Your task to perform on an android device: Open internet settings Image 0: 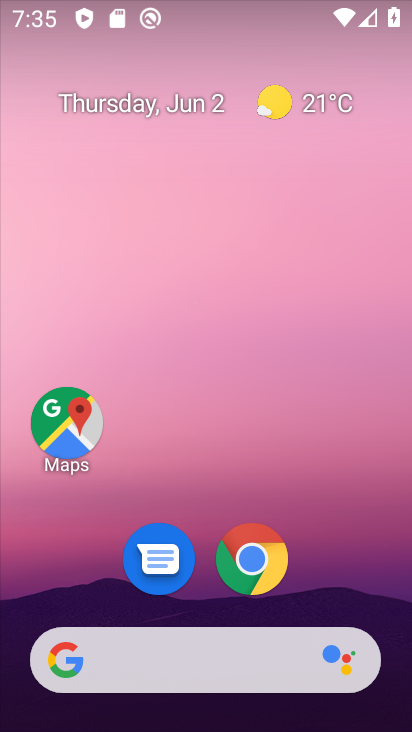
Step 0: click (163, 18)
Your task to perform on an android device: Open internet settings Image 1: 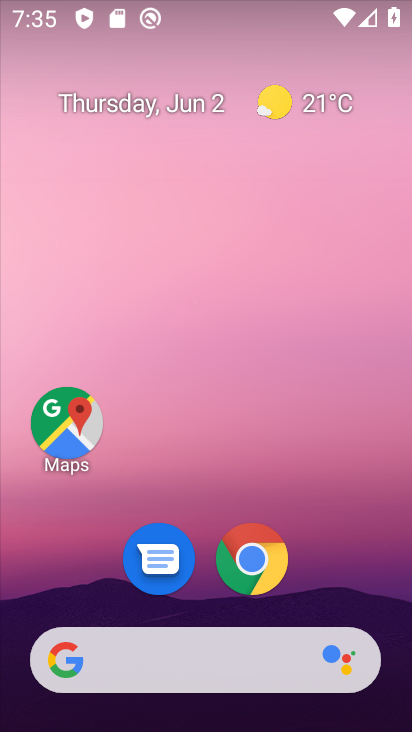
Step 1: drag from (216, 486) to (146, 19)
Your task to perform on an android device: Open internet settings Image 2: 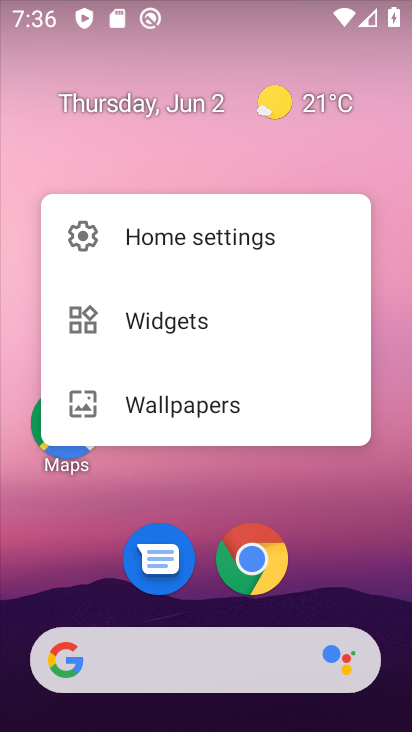
Step 2: click (336, 523)
Your task to perform on an android device: Open internet settings Image 3: 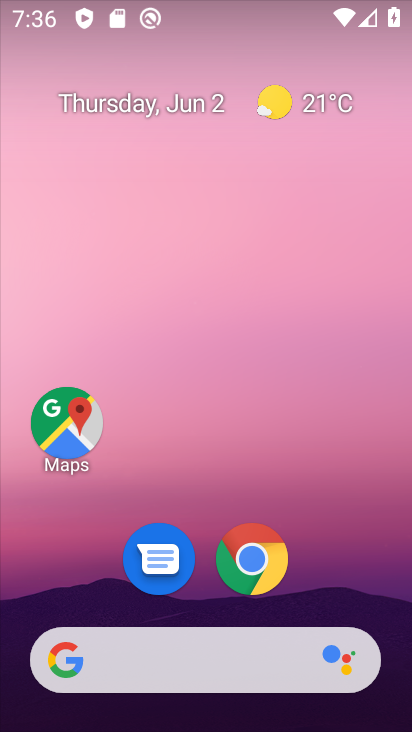
Step 3: click (234, 105)
Your task to perform on an android device: Open internet settings Image 4: 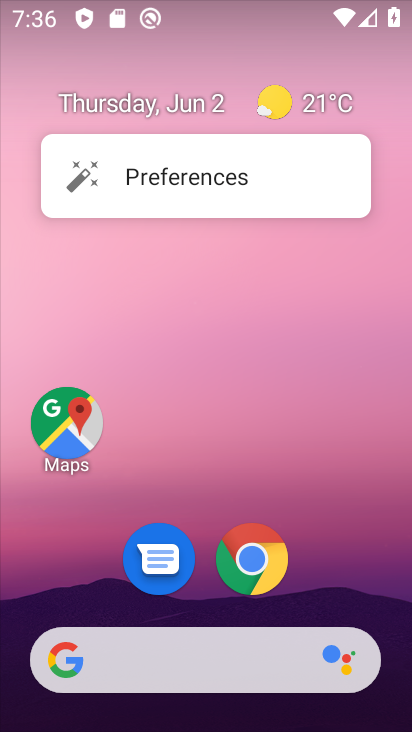
Step 4: click (203, 491)
Your task to perform on an android device: Open internet settings Image 5: 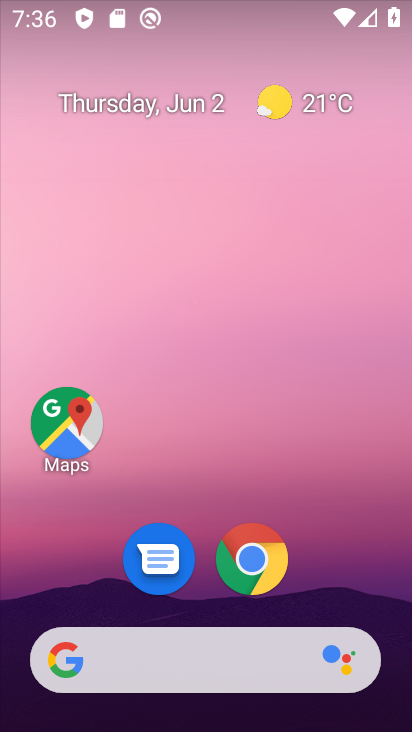
Step 5: drag from (193, 302) to (203, 86)
Your task to perform on an android device: Open internet settings Image 6: 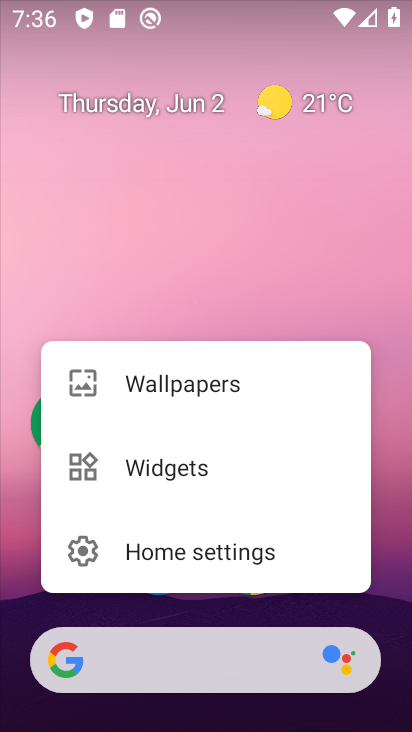
Step 6: click (280, 207)
Your task to perform on an android device: Open internet settings Image 7: 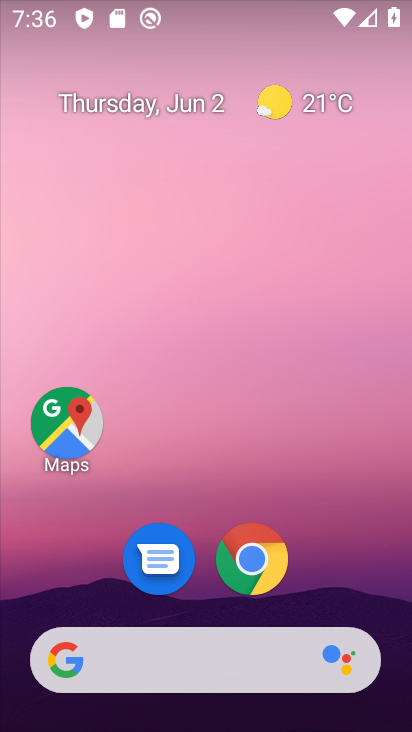
Step 7: drag from (319, 549) to (218, 143)
Your task to perform on an android device: Open internet settings Image 8: 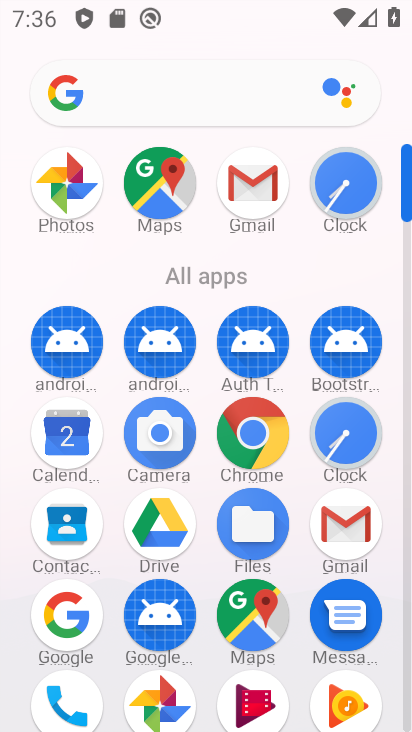
Step 8: drag from (209, 600) to (190, 169)
Your task to perform on an android device: Open internet settings Image 9: 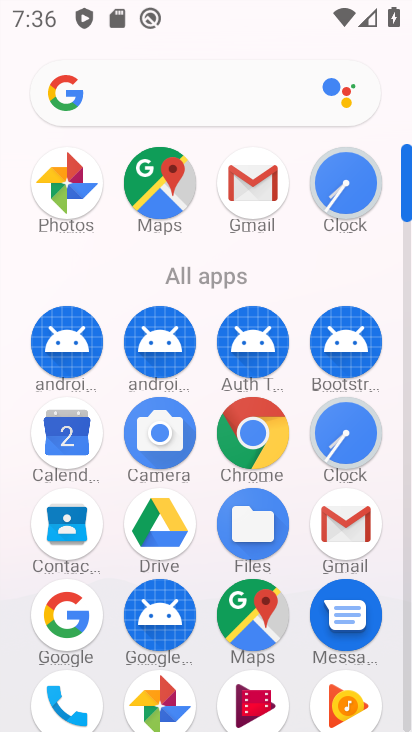
Step 9: drag from (209, 600) to (146, 196)
Your task to perform on an android device: Open internet settings Image 10: 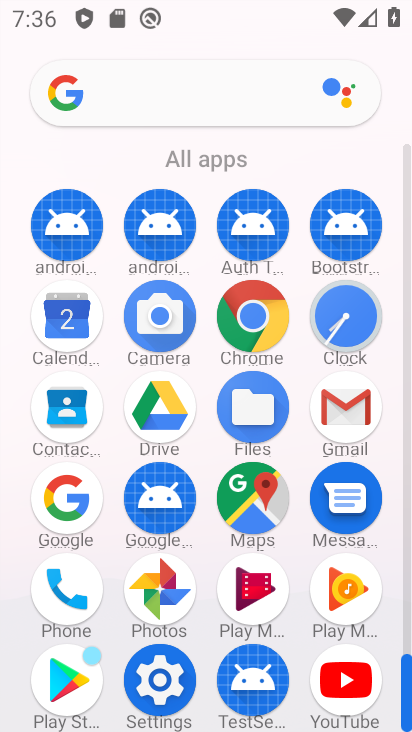
Step 10: click (160, 653)
Your task to perform on an android device: Open internet settings Image 11: 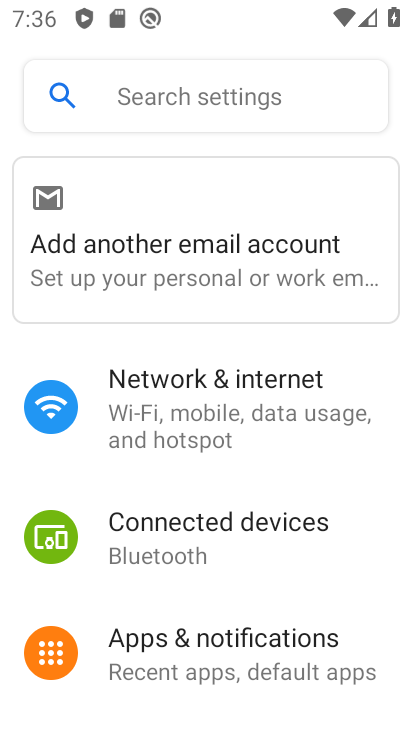
Step 11: click (217, 400)
Your task to perform on an android device: Open internet settings Image 12: 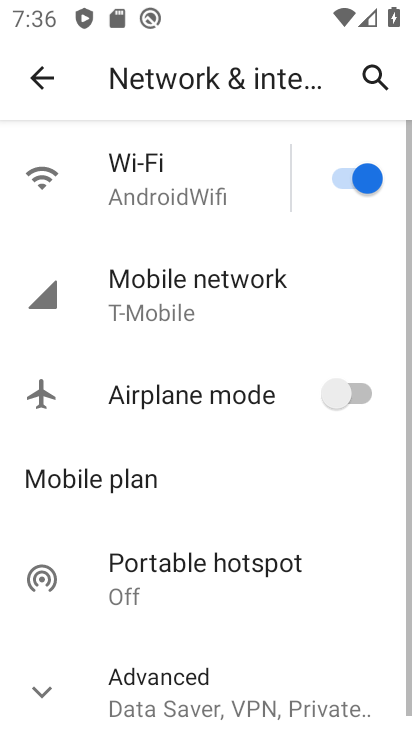
Step 12: task complete